Your task to perform on an android device: Open Google Maps and go to "Timeline" Image 0: 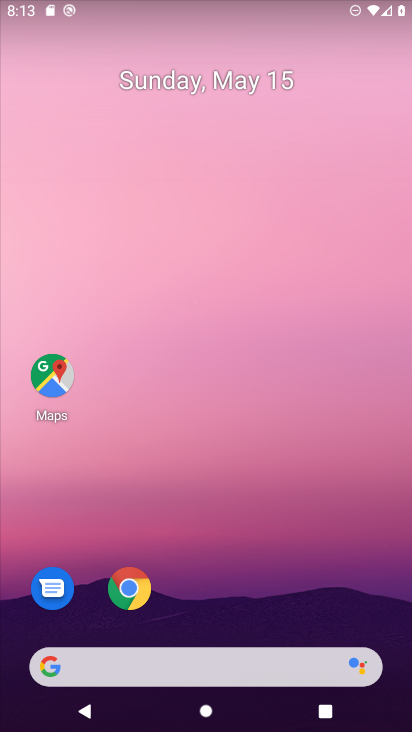
Step 0: press home button
Your task to perform on an android device: Open Google Maps and go to "Timeline" Image 1: 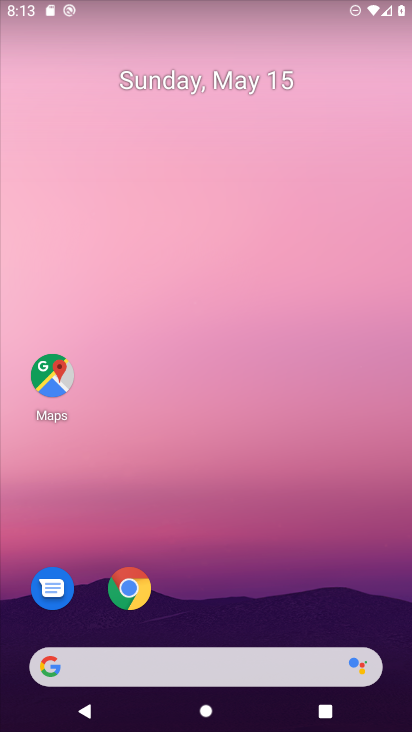
Step 1: click (50, 371)
Your task to perform on an android device: Open Google Maps and go to "Timeline" Image 2: 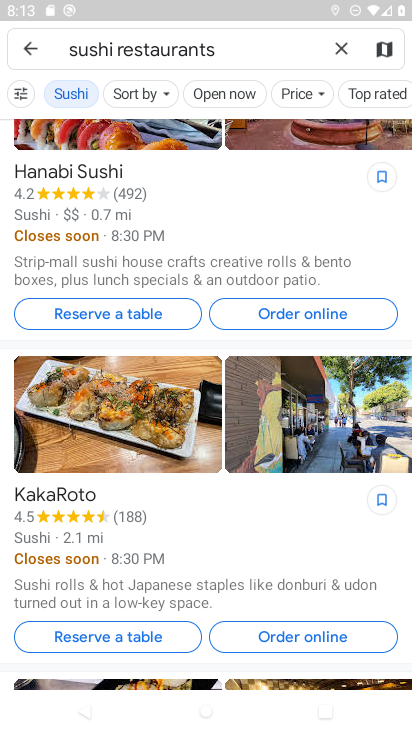
Step 2: click (32, 47)
Your task to perform on an android device: Open Google Maps and go to "Timeline" Image 3: 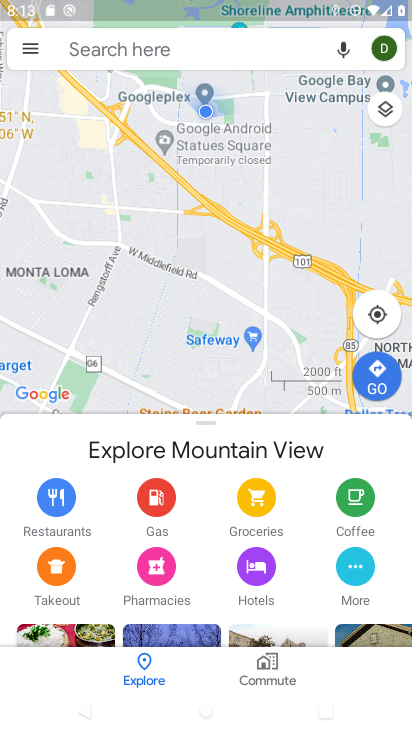
Step 3: click (30, 46)
Your task to perform on an android device: Open Google Maps and go to "Timeline" Image 4: 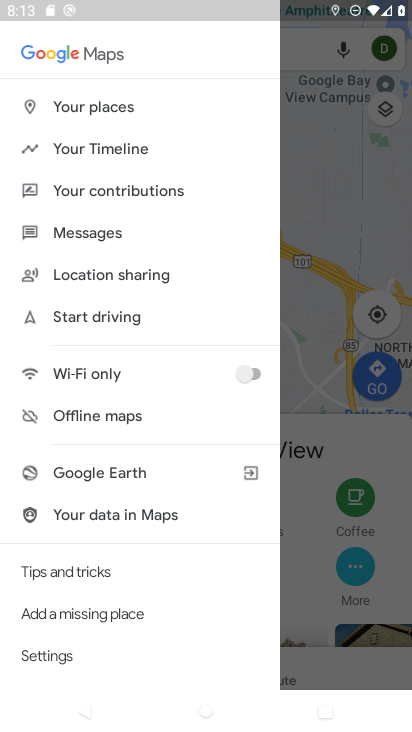
Step 4: click (108, 150)
Your task to perform on an android device: Open Google Maps and go to "Timeline" Image 5: 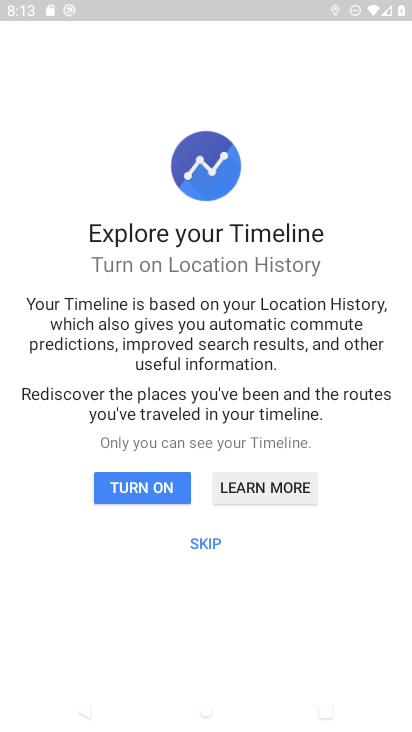
Step 5: click (123, 487)
Your task to perform on an android device: Open Google Maps and go to "Timeline" Image 6: 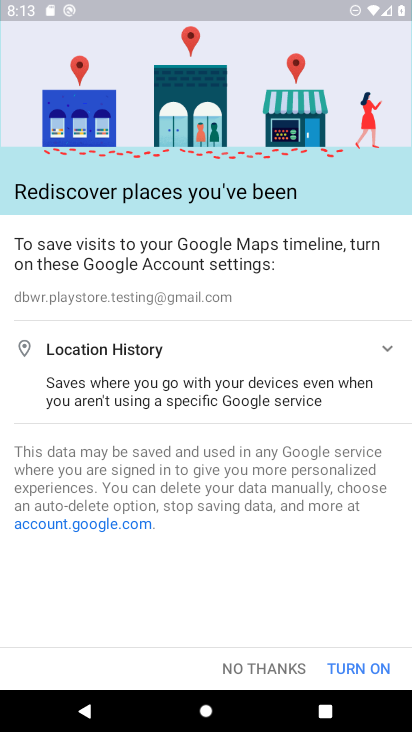
Step 6: click (353, 662)
Your task to perform on an android device: Open Google Maps and go to "Timeline" Image 7: 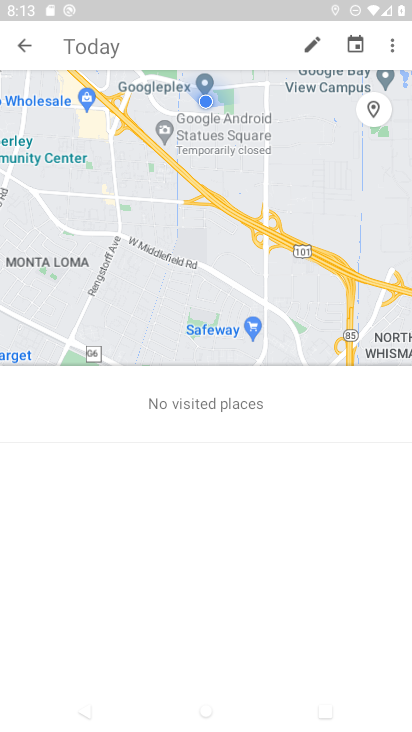
Step 7: task complete